Your task to perform on an android device: What is the recent news? Image 0: 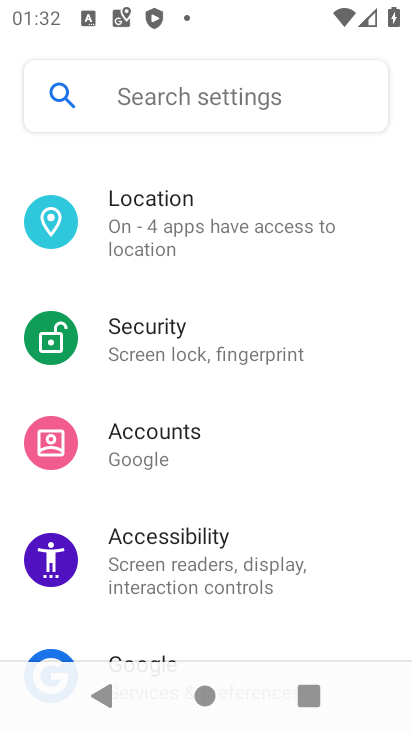
Step 0: press home button
Your task to perform on an android device: What is the recent news? Image 1: 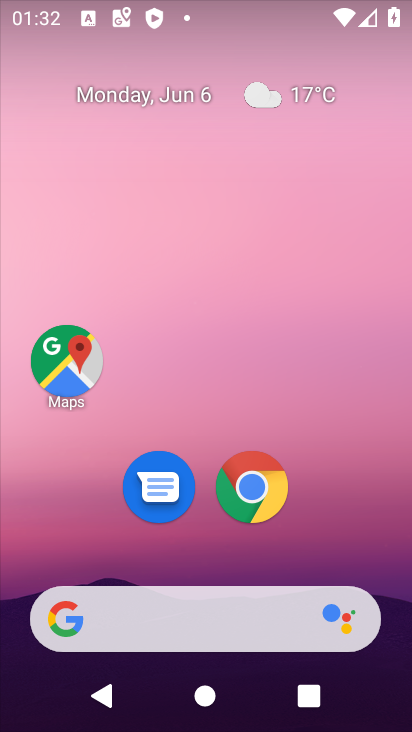
Step 1: task complete